Your task to perform on an android device: change notification settings in the gmail app Image 0: 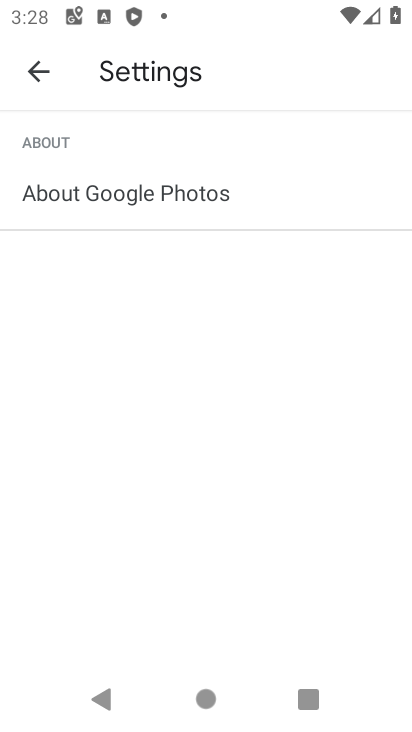
Step 0: press home button
Your task to perform on an android device: change notification settings in the gmail app Image 1: 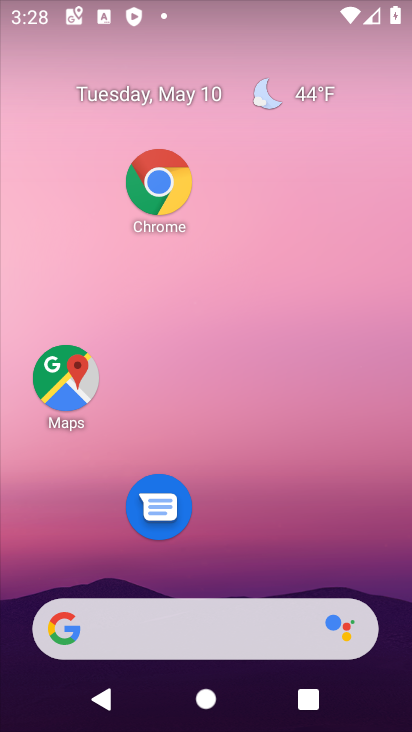
Step 1: drag from (303, 537) to (302, 58)
Your task to perform on an android device: change notification settings in the gmail app Image 2: 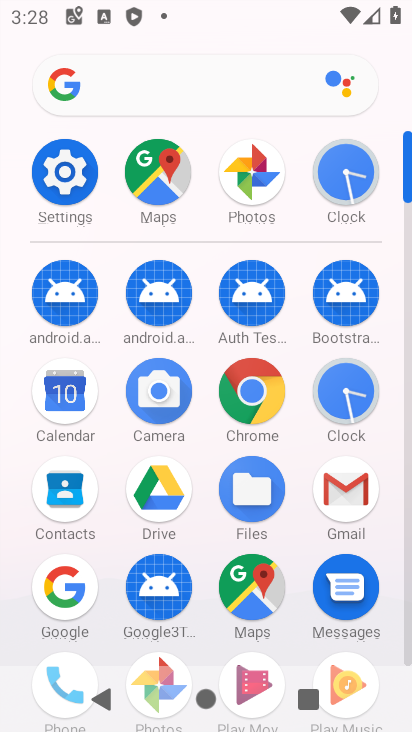
Step 2: click (345, 507)
Your task to perform on an android device: change notification settings in the gmail app Image 3: 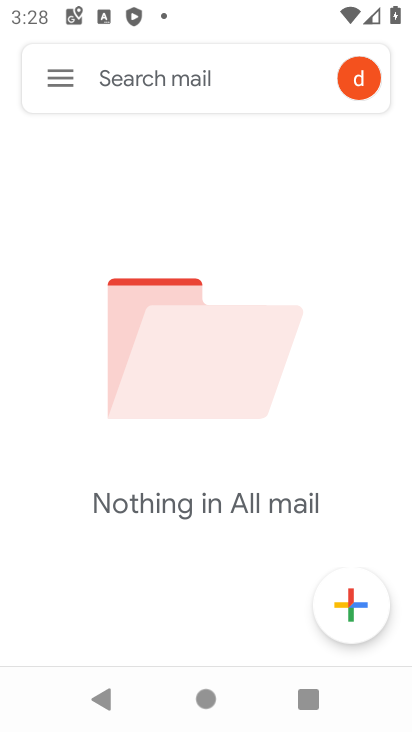
Step 3: click (75, 85)
Your task to perform on an android device: change notification settings in the gmail app Image 4: 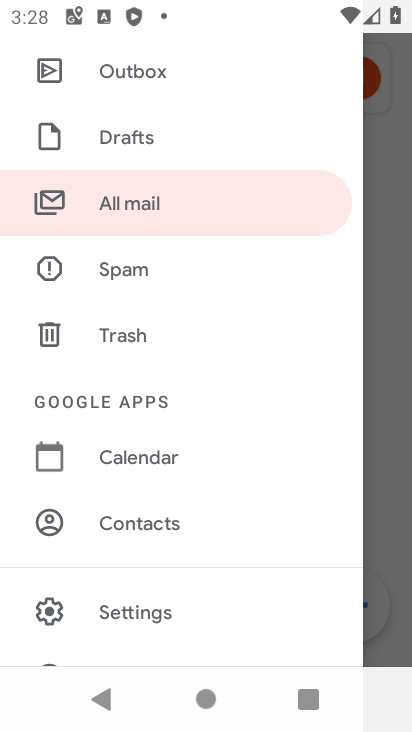
Step 4: click (149, 600)
Your task to perform on an android device: change notification settings in the gmail app Image 5: 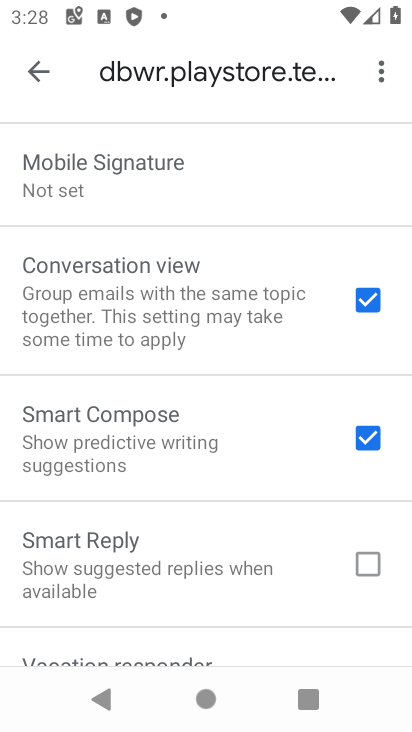
Step 5: drag from (148, 176) to (68, 563)
Your task to perform on an android device: change notification settings in the gmail app Image 6: 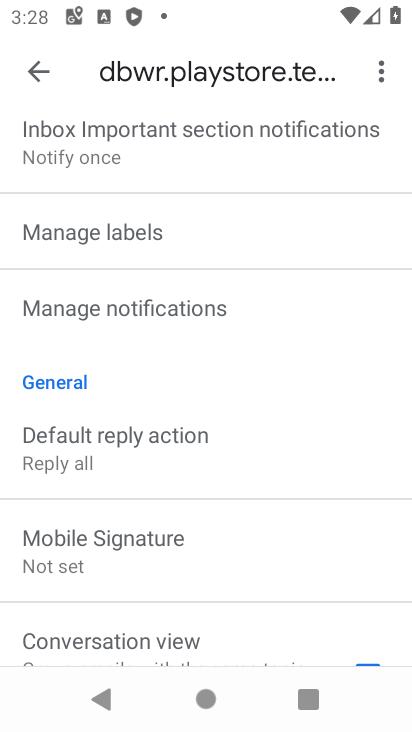
Step 6: click (42, 276)
Your task to perform on an android device: change notification settings in the gmail app Image 7: 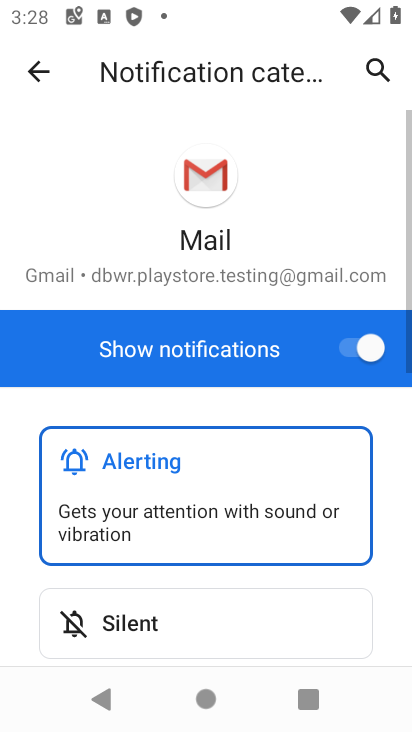
Step 7: click (333, 375)
Your task to perform on an android device: change notification settings in the gmail app Image 8: 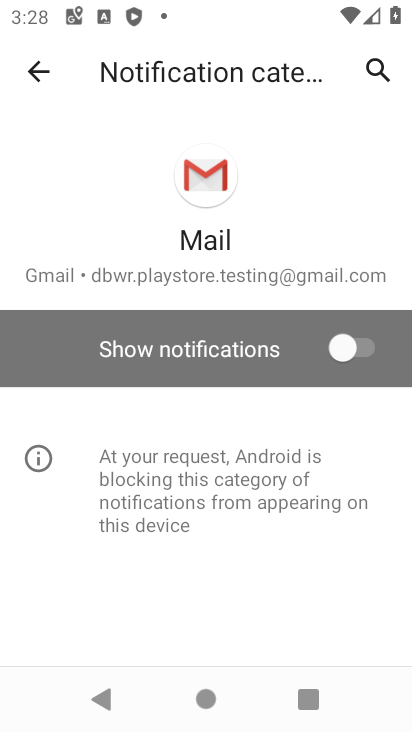
Step 8: task complete